Your task to perform on an android device: toggle show notifications on the lock screen Image 0: 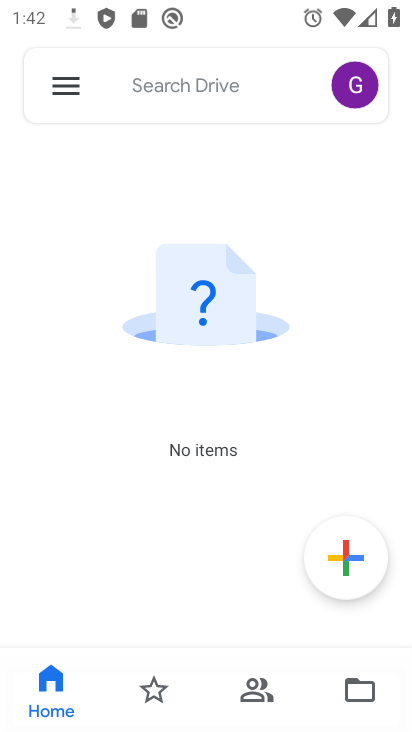
Step 0: press home button
Your task to perform on an android device: toggle show notifications on the lock screen Image 1: 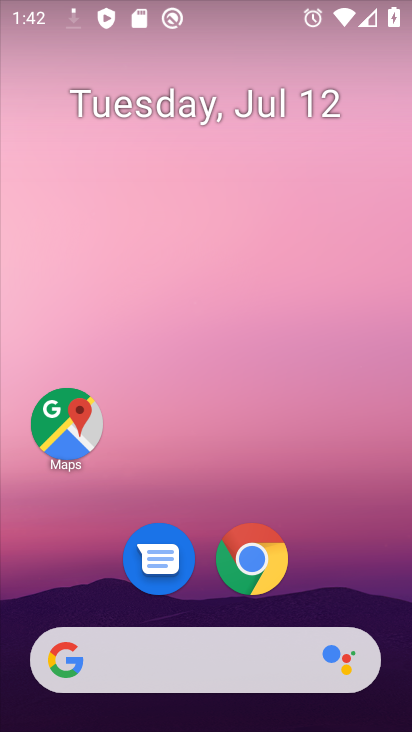
Step 1: drag from (368, 584) to (370, 135)
Your task to perform on an android device: toggle show notifications on the lock screen Image 2: 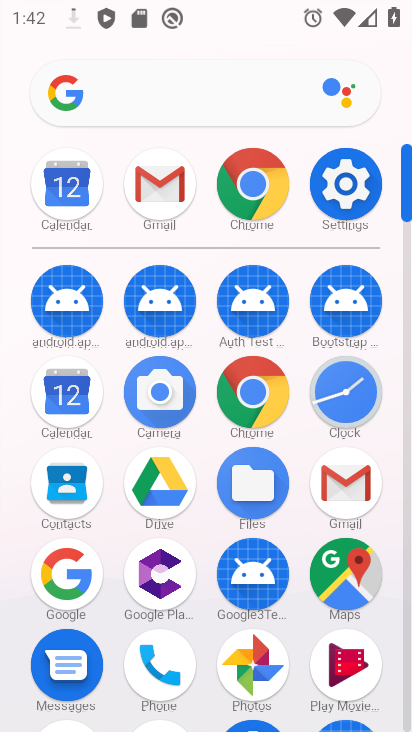
Step 2: click (361, 185)
Your task to perform on an android device: toggle show notifications on the lock screen Image 3: 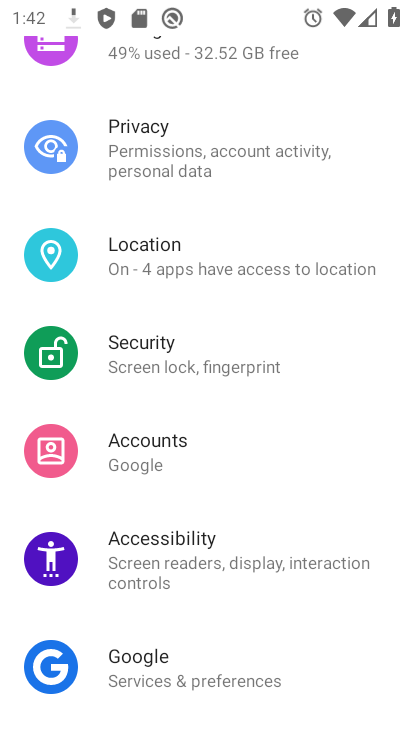
Step 3: drag from (360, 208) to (349, 339)
Your task to perform on an android device: toggle show notifications on the lock screen Image 4: 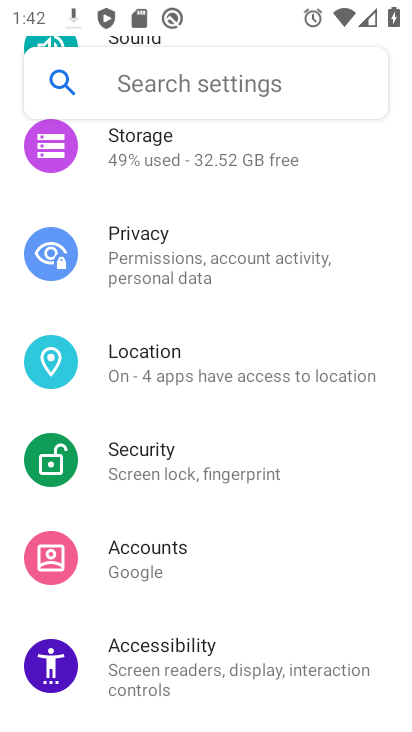
Step 4: drag from (348, 186) to (352, 311)
Your task to perform on an android device: toggle show notifications on the lock screen Image 5: 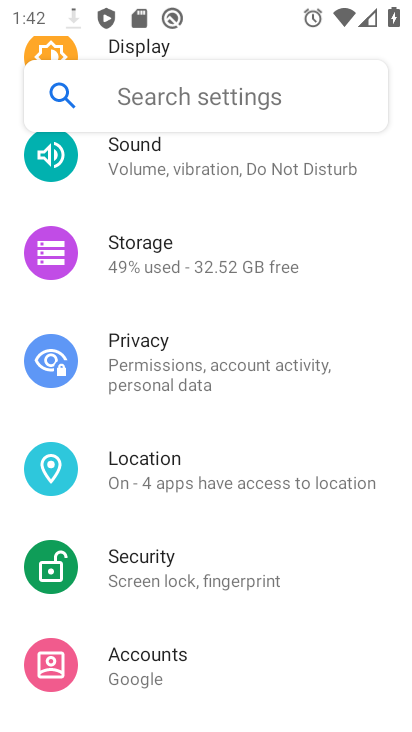
Step 5: drag from (361, 212) to (374, 335)
Your task to perform on an android device: toggle show notifications on the lock screen Image 6: 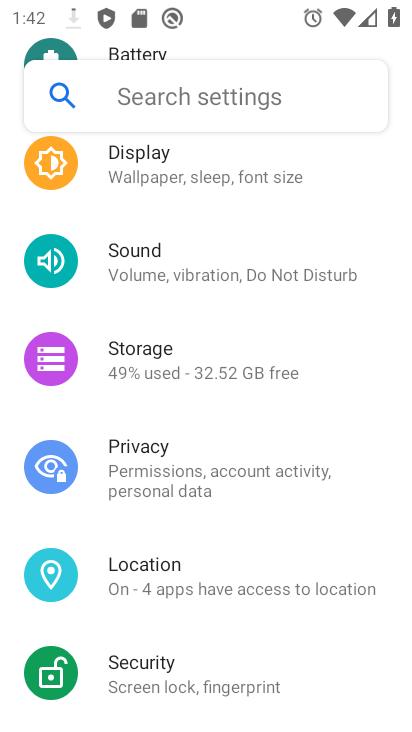
Step 6: drag from (366, 199) to (367, 294)
Your task to perform on an android device: toggle show notifications on the lock screen Image 7: 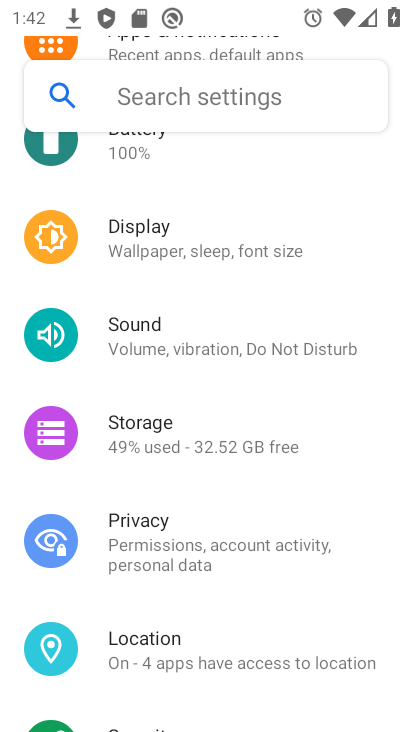
Step 7: drag from (358, 185) to (361, 299)
Your task to perform on an android device: toggle show notifications on the lock screen Image 8: 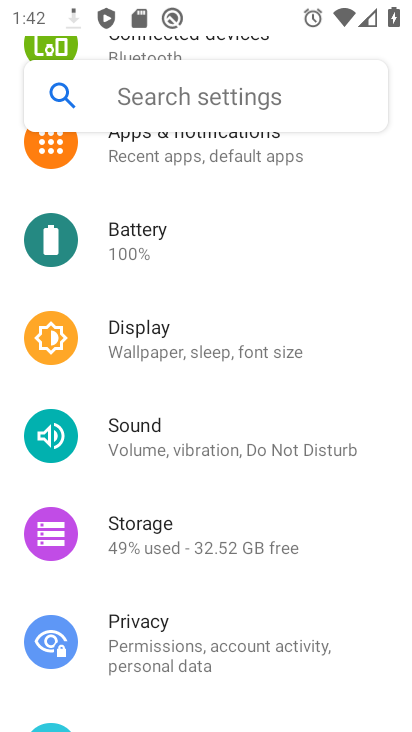
Step 8: drag from (355, 202) to (356, 320)
Your task to perform on an android device: toggle show notifications on the lock screen Image 9: 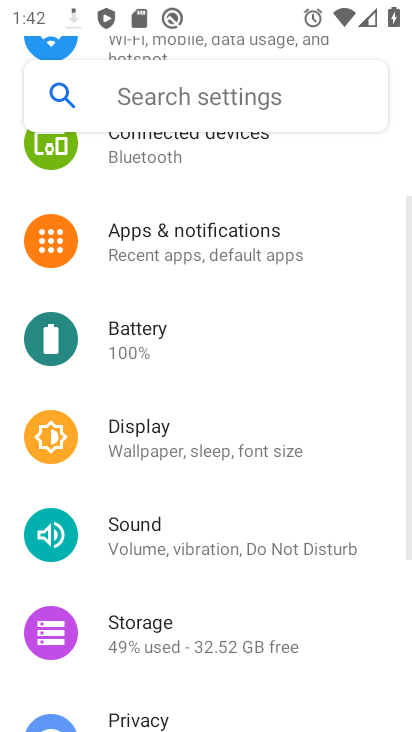
Step 9: drag from (357, 252) to (356, 375)
Your task to perform on an android device: toggle show notifications on the lock screen Image 10: 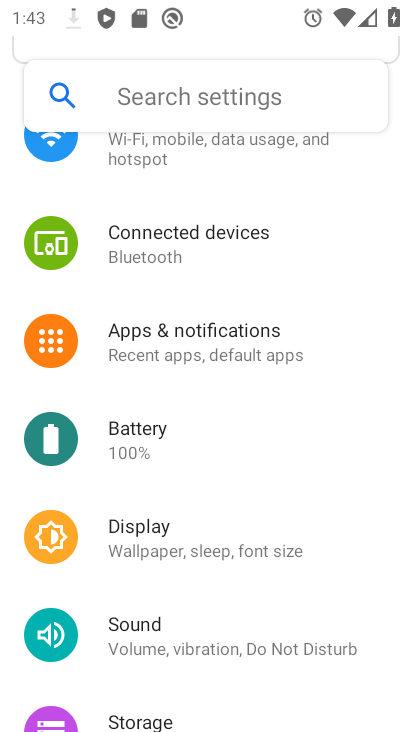
Step 10: drag from (344, 208) to (344, 359)
Your task to perform on an android device: toggle show notifications on the lock screen Image 11: 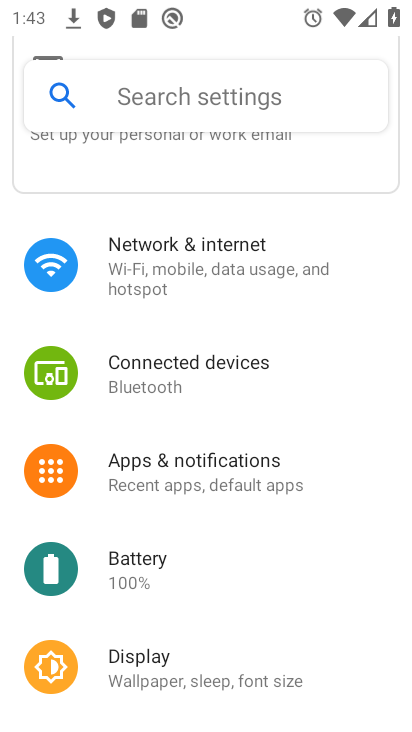
Step 11: drag from (358, 233) to (360, 410)
Your task to perform on an android device: toggle show notifications on the lock screen Image 12: 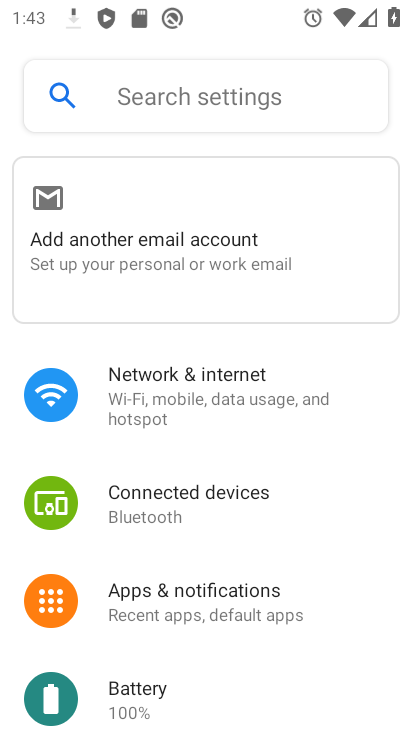
Step 12: drag from (288, 549) to (297, 398)
Your task to perform on an android device: toggle show notifications on the lock screen Image 13: 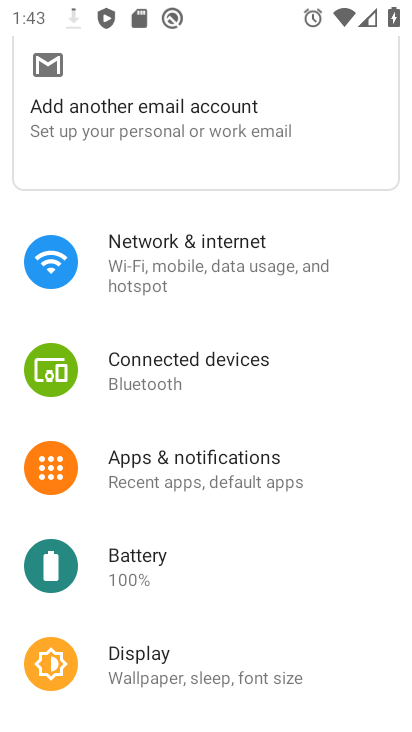
Step 13: click (249, 458)
Your task to perform on an android device: toggle show notifications on the lock screen Image 14: 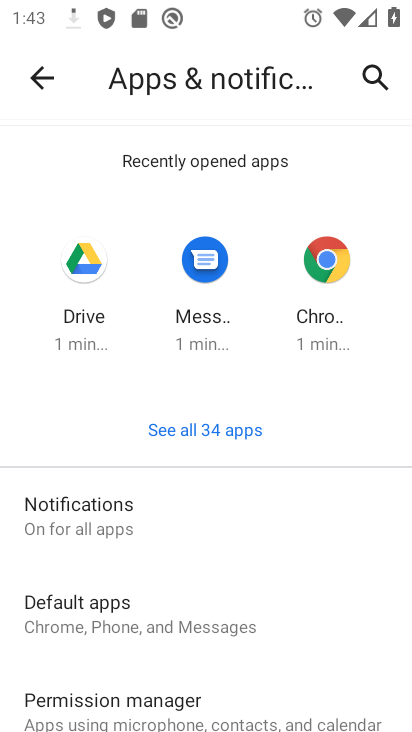
Step 14: click (133, 531)
Your task to perform on an android device: toggle show notifications on the lock screen Image 15: 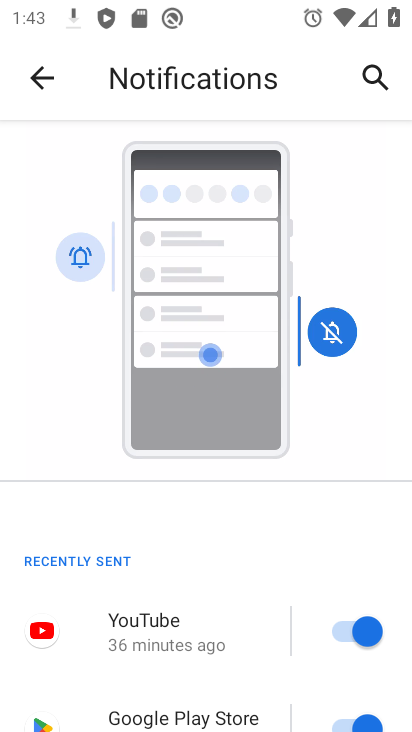
Step 15: drag from (267, 557) to (278, 222)
Your task to perform on an android device: toggle show notifications on the lock screen Image 16: 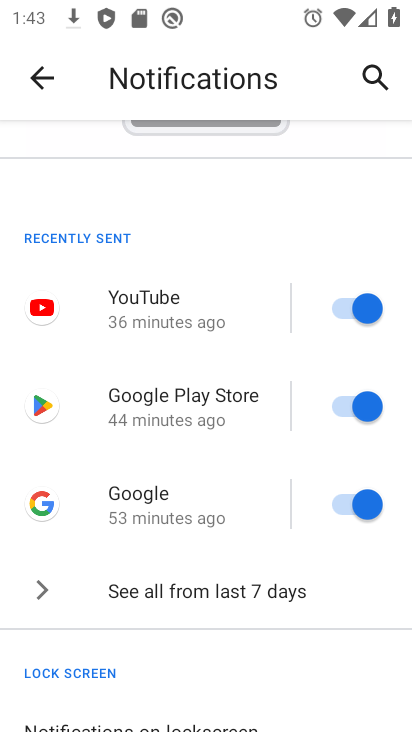
Step 16: drag from (243, 480) to (245, 238)
Your task to perform on an android device: toggle show notifications on the lock screen Image 17: 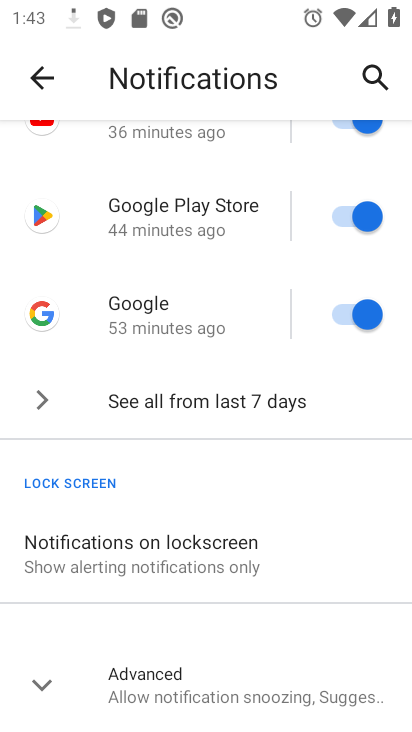
Step 17: click (211, 561)
Your task to perform on an android device: toggle show notifications on the lock screen Image 18: 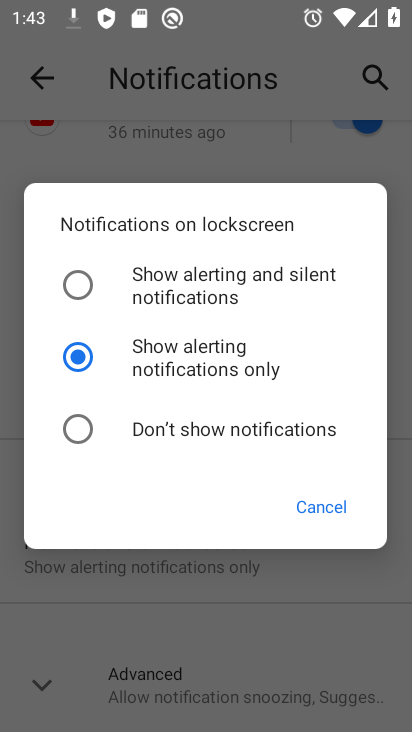
Step 18: click (85, 286)
Your task to perform on an android device: toggle show notifications on the lock screen Image 19: 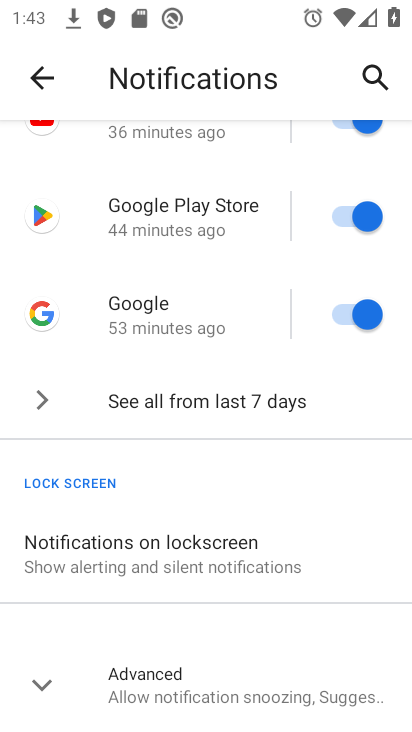
Step 19: task complete